Your task to perform on an android device: Open Google Maps and go to "Timeline" Image 0: 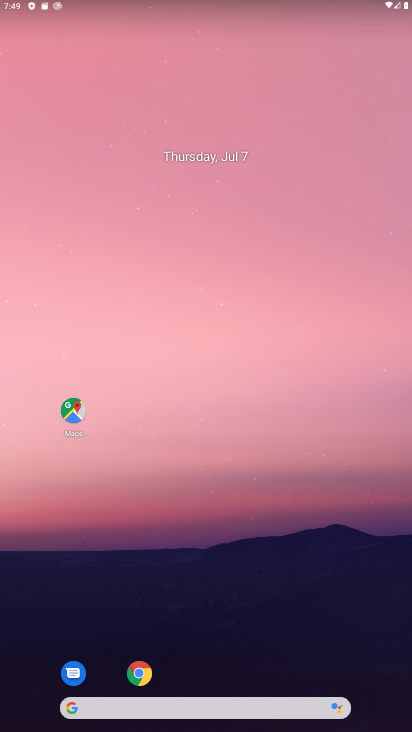
Step 0: drag from (206, 684) to (172, 104)
Your task to perform on an android device: Open Google Maps and go to "Timeline" Image 1: 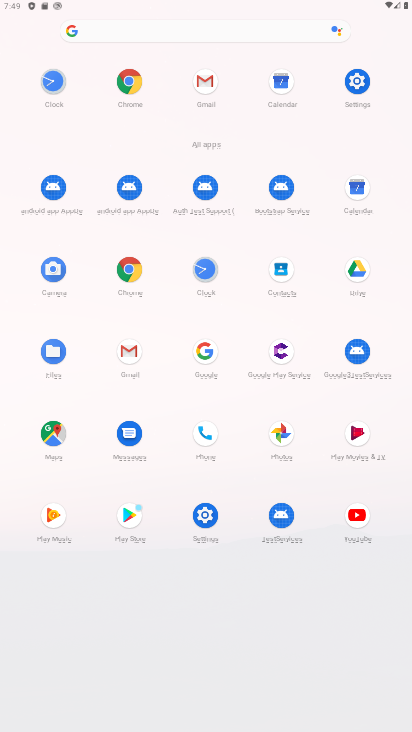
Step 1: click (49, 424)
Your task to perform on an android device: Open Google Maps and go to "Timeline" Image 2: 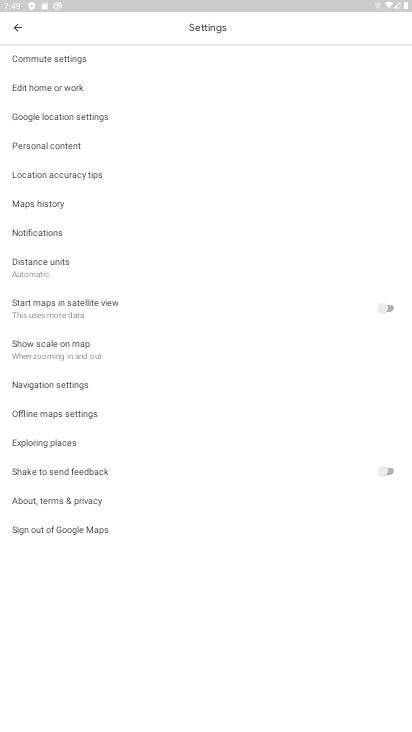
Step 2: click (21, 24)
Your task to perform on an android device: Open Google Maps and go to "Timeline" Image 3: 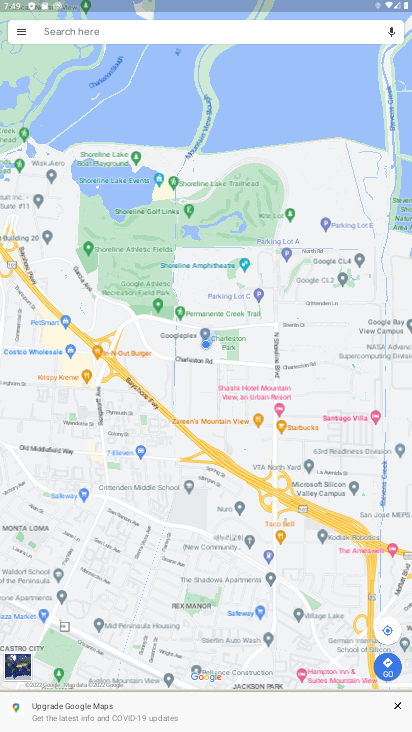
Step 3: click (21, 30)
Your task to perform on an android device: Open Google Maps and go to "Timeline" Image 4: 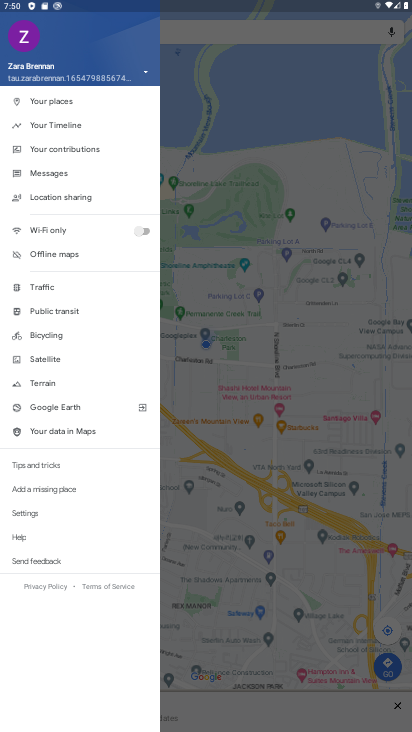
Step 4: click (55, 126)
Your task to perform on an android device: Open Google Maps and go to "Timeline" Image 5: 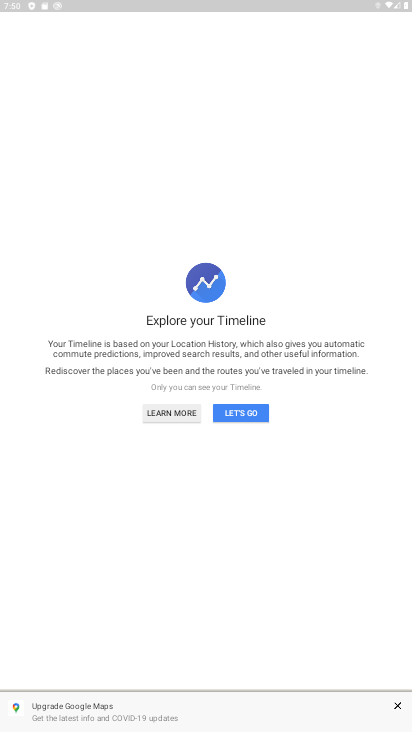
Step 5: click (249, 408)
Your task to perform on an android device: Open Google Maps and go to "Timeline" Image 6: 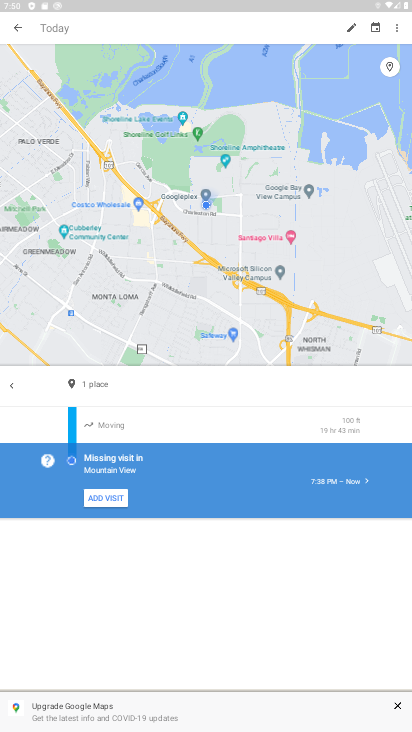
Step 6: task complete